Your task to perform on an android device: find photos in the google photos app Image 0: 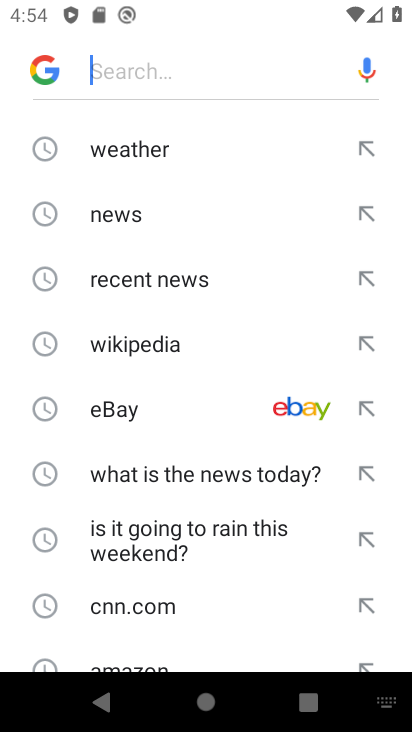
Step 0: press home button
Your task to perform on an android device: find photos in the google photos app Image 1: 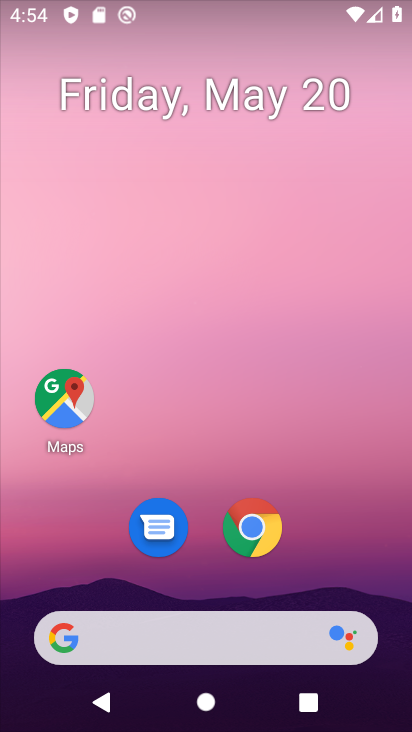
Step 1: drag from (287, 518) to (304, 6)
Your task to perform on an android device: find photos in the google photos app Image 2: 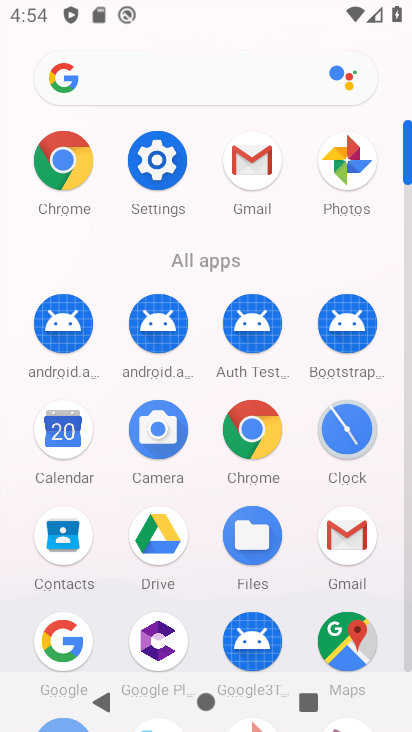
Step 2: drag from (302, 615) to (314, 197)
Your task to perform on an android device: find photos in the google photos app Image 3: 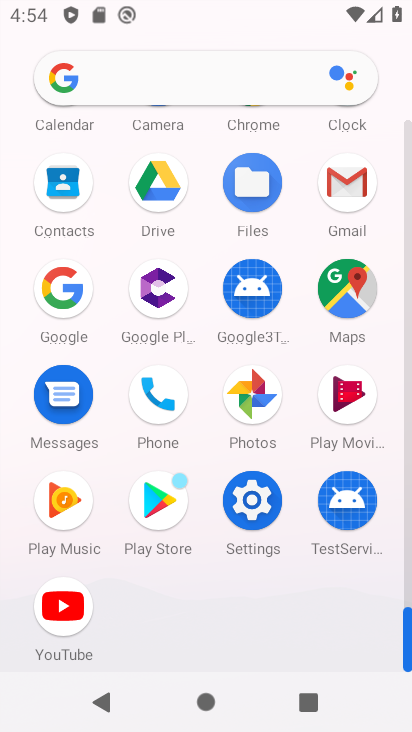
Step 3: click (252, 406)
Your task to perform on an android device: find photos in the google photos app Image 4: 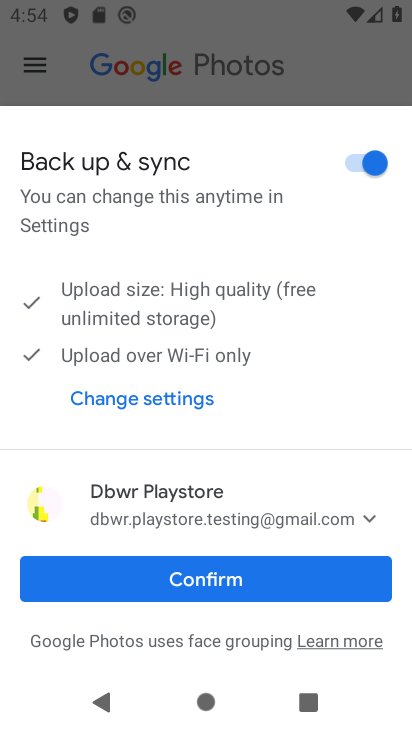
Step 4: click (226, 583)
Your task to perform on an android device: find photos in the google photos app Image 5: 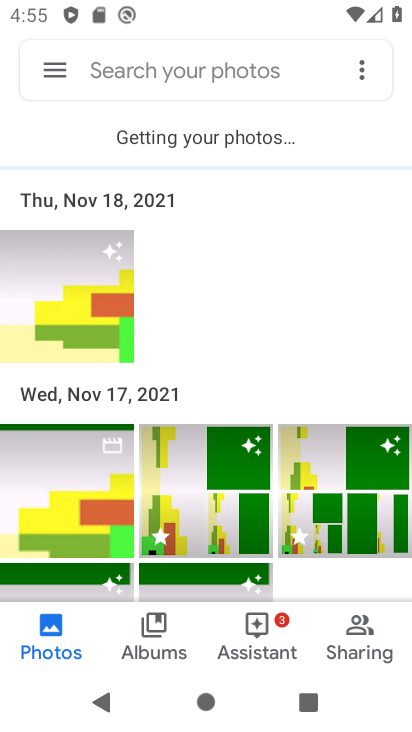
Step 5: task complete